Your task to perform on an android device: clear history in the chrome app Image 0: 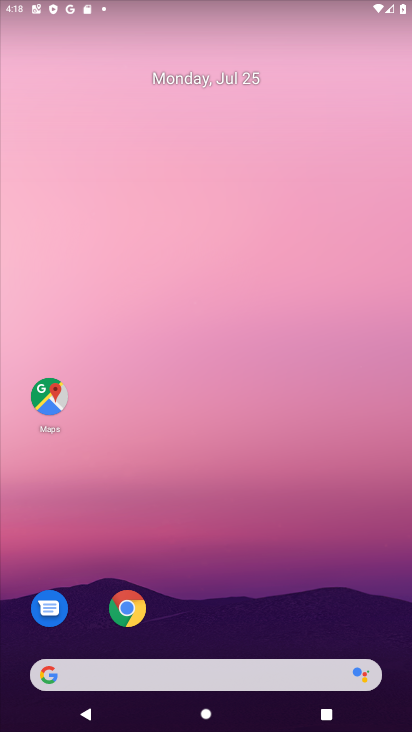
Step 0: drag from (173, 198) to (206, 458)
Your task to perform on an android device: clear history in the chrome app Image 1: 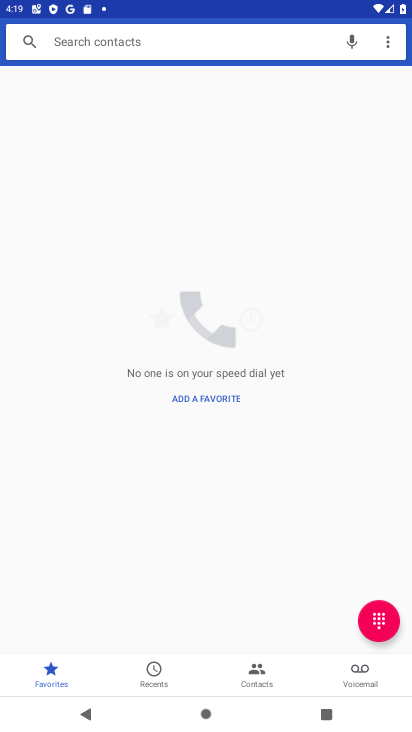
Step 1: press home button
Your task to perform on an android device: clear history in the chrome app Image 2: 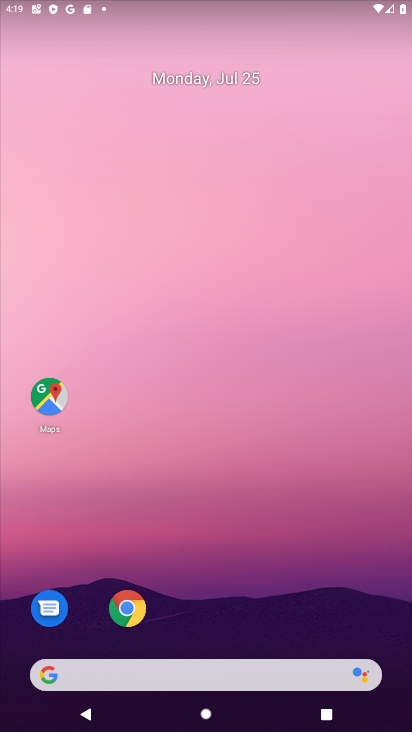
Step 2: click (129, 603)
Your task to perform on an android device: clear history in the chrome app Image 3: 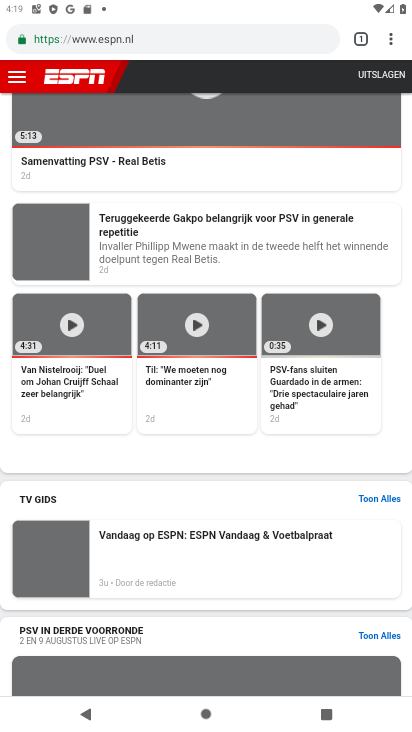
Step 3: click (393, 36)
Your task to perform on an android device: clear history in the chrome app Image 4: 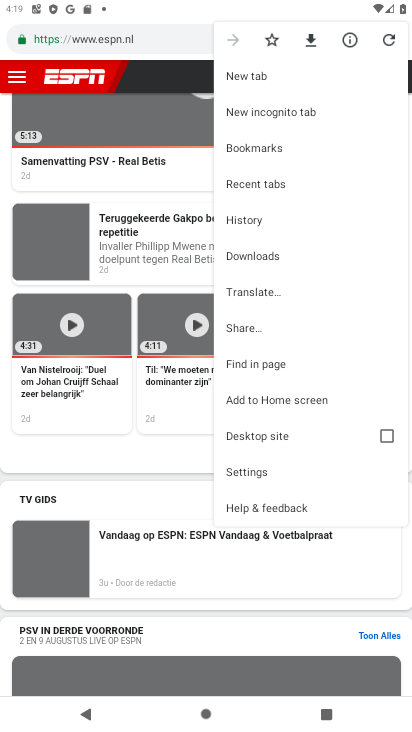
Step 4: click (281, 468)
Your task to perform on an android device: clear history in the chrome app Image 5: 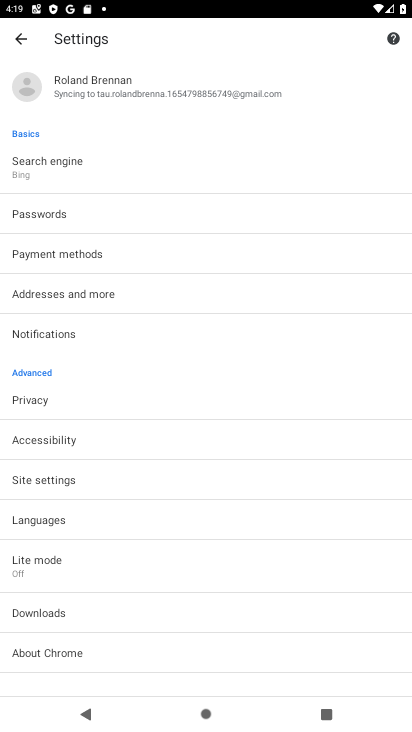
Step 5: click (15, 40)
Your task to perform on an android device: clear history in the chrome app Image 6: 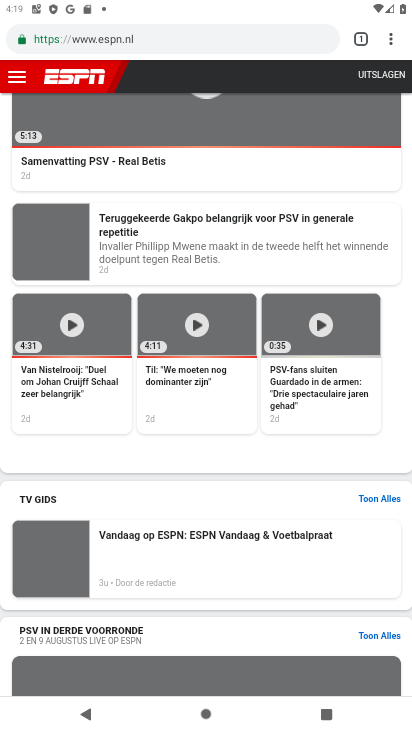
Step 6: click (390, 36)
Your task to perform on an android device: clear history in the chrome app Image 7: 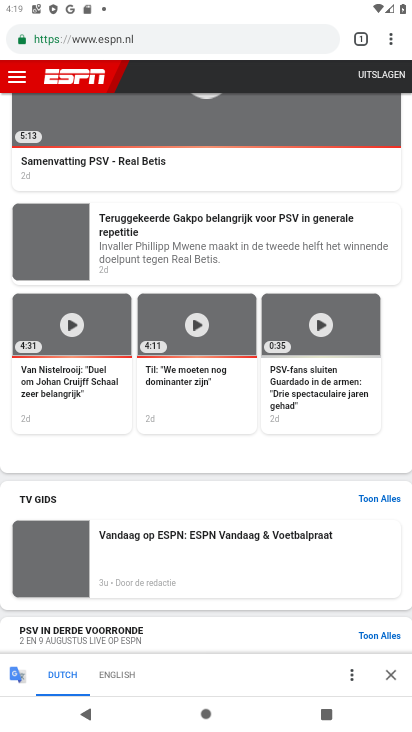
Step 7: click (389, 41)
Your task to perform on an android device: clear history in the chrome app Image 8: 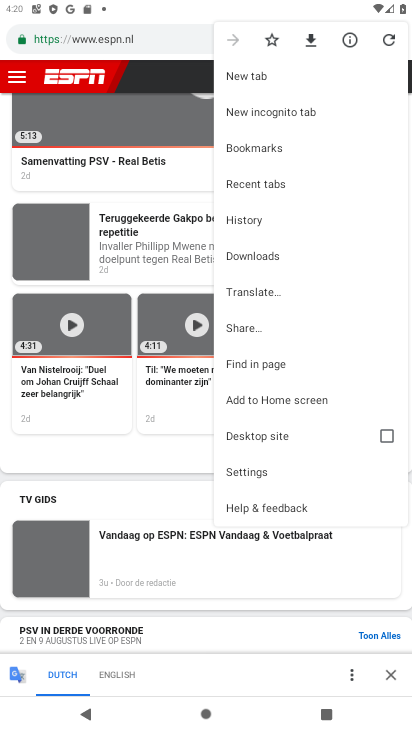
Step 8: click (276, 211)
Your task to perform on an android device: clear history in the chrome app Image 9: 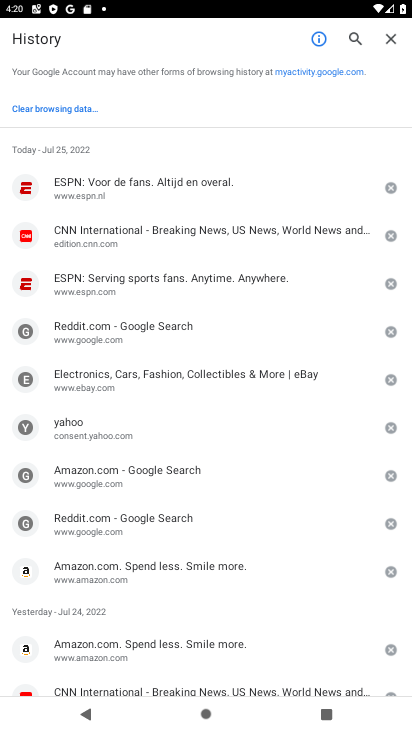
Step 9: click (46, 108)
Your task to perform on an android device: clear history in the chrome app Image 10: 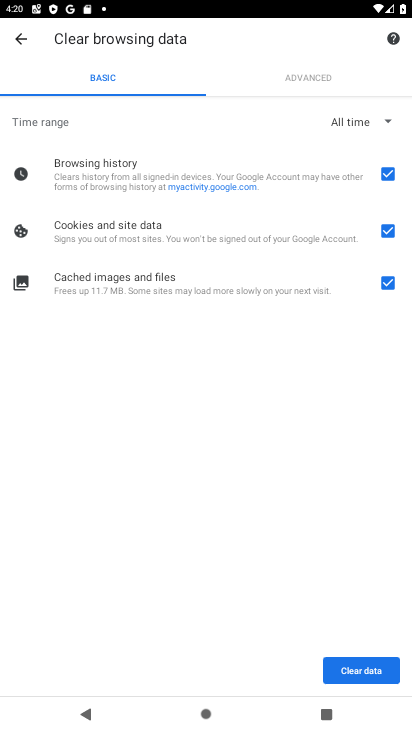
Step 10: click (360, 666)
Your task to perform on an android device: clear history in the chrome app Image 11: 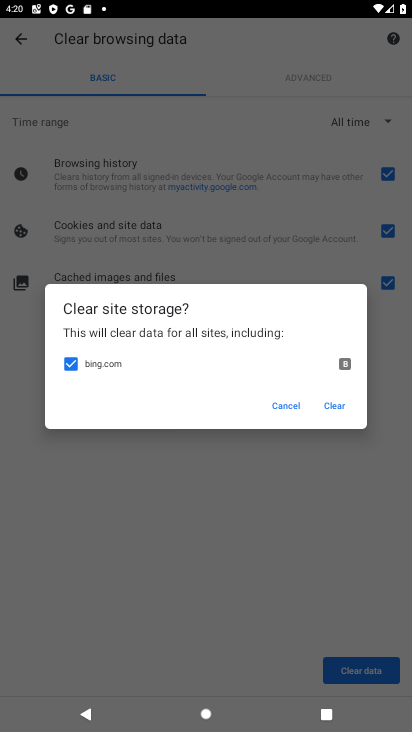
Step 11: click (334, 403)
Your task to perform on an android device: clear history in the chrome app Image 12: 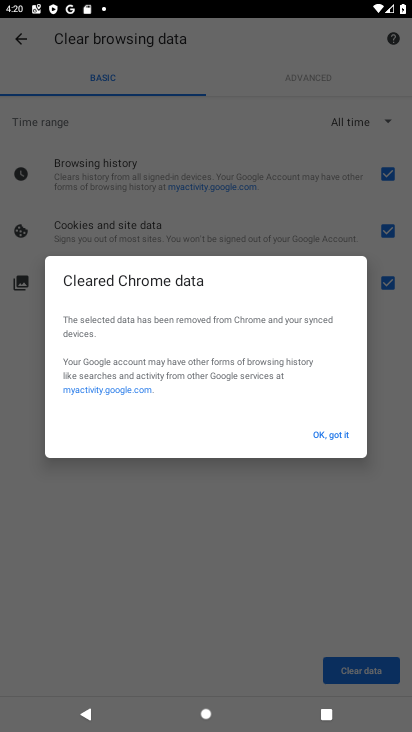
Step 12: click (329, 442)
Your task to perform on an android device: clear history in the chrome app Image 13: 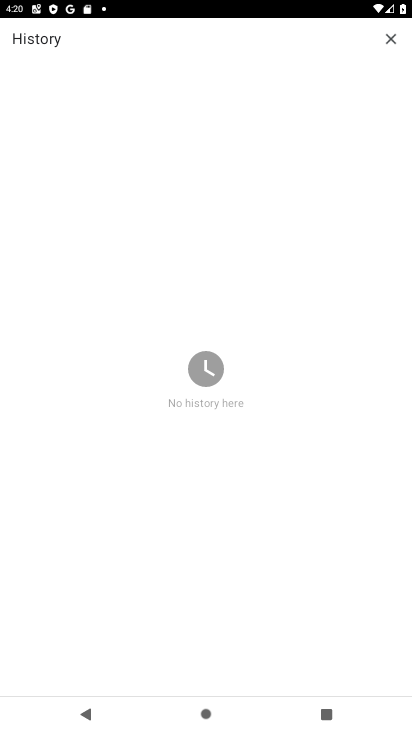
Step 13: task complete